Your task to perform on an android device: Show me productivity apps on the Play Store Image 0: 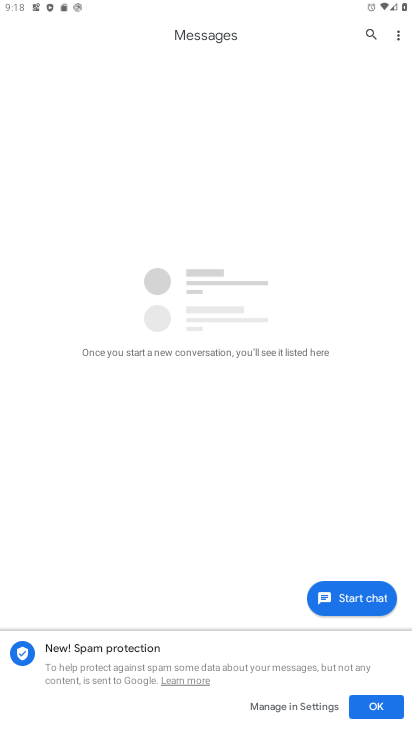
Step 0: press home button
Your task to perform on an android device: Show me productivity apps on the Play Store Image 1: 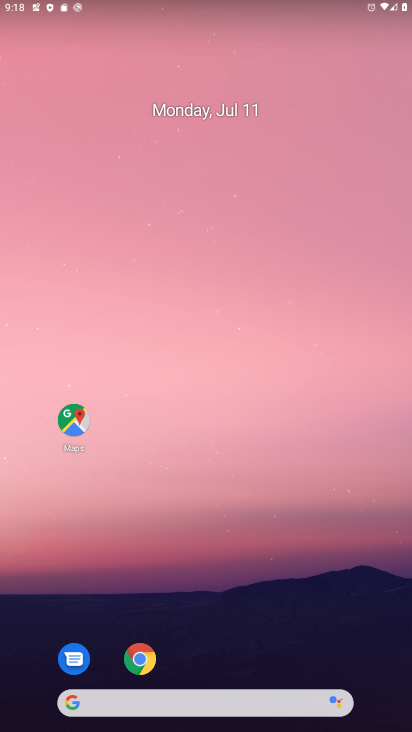
Step 1: drag from (252, 595) to (216, 226)
Your task to perform on an android device: Show me productivity apps on the Play Store Image 2: 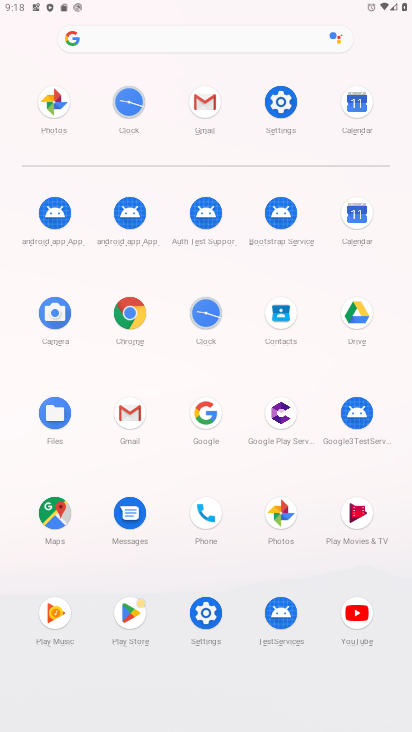
Step 2: click (130, 612)
Your task to perform on an android device: Show me productivity apps on the Play Store Image 3: 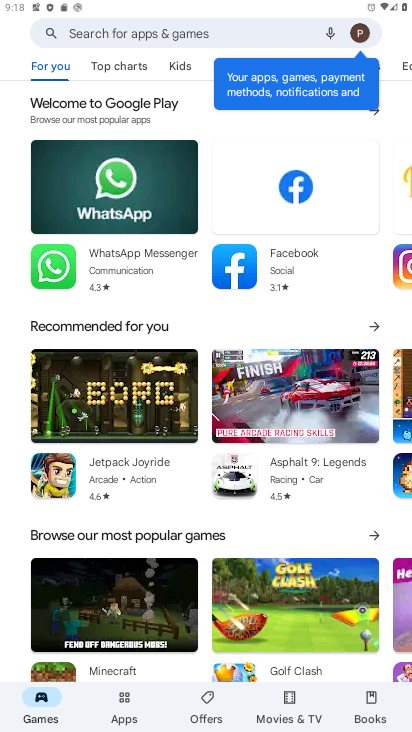
Step 3: click (122, 698)
Your task to perform on an android device: Show me productivity apps on the Play Store Image 4: 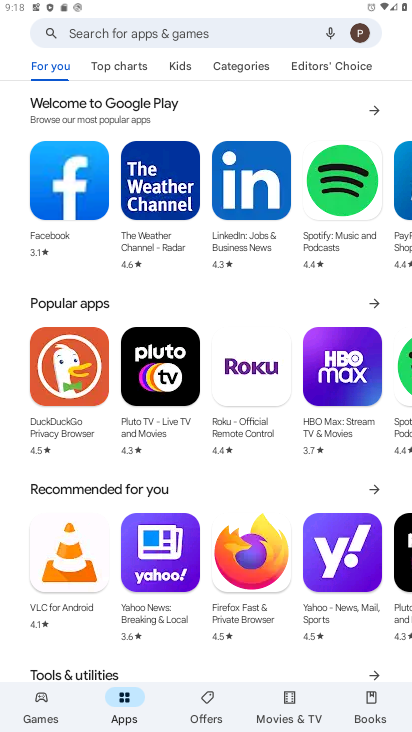
Step 4: task complete